Your task to perform on an android device: toggle notifications settings in the gmail app Image 0: 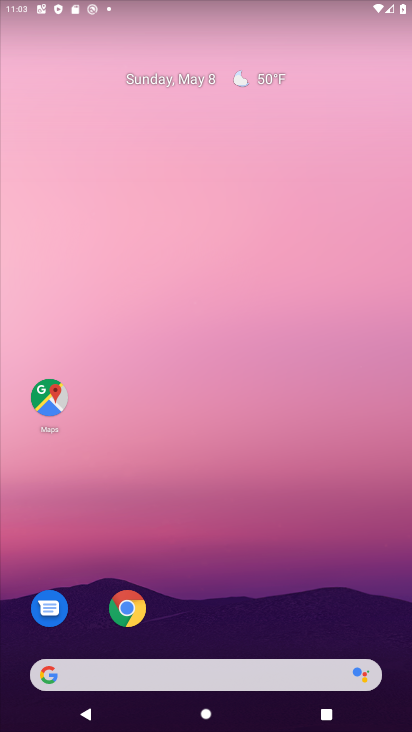
Step 0: drag from (326, 463) to (338, 99)
Your task to perform on an android device: toggle notifications settings in the gmail app Image 1: 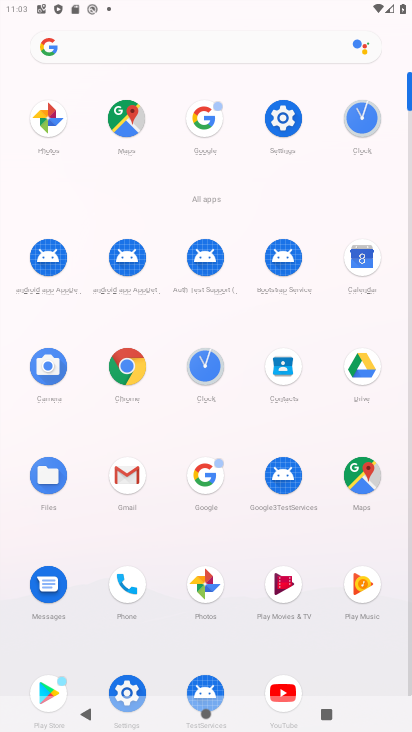
Step 1: click (140, 462)
Your task to perform on an android device: toggle notifications settings in the gmail app Image 2: 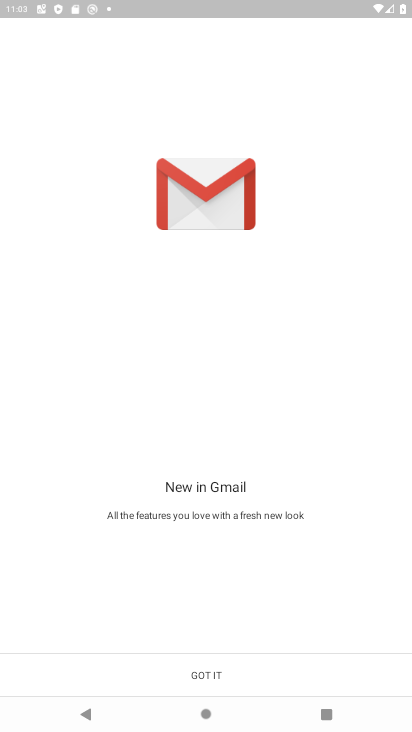
Step 2: click (224, 672)
Your task to perform on an android device: toggle notifications settings in the gmail app Image 3: 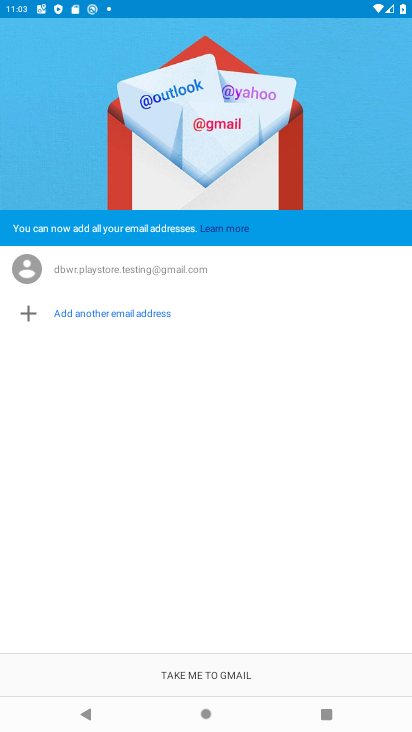
Step 3: click (224, 670)
Your task to perform on an android device: toggle notifications settings in the gmail app Image 4: 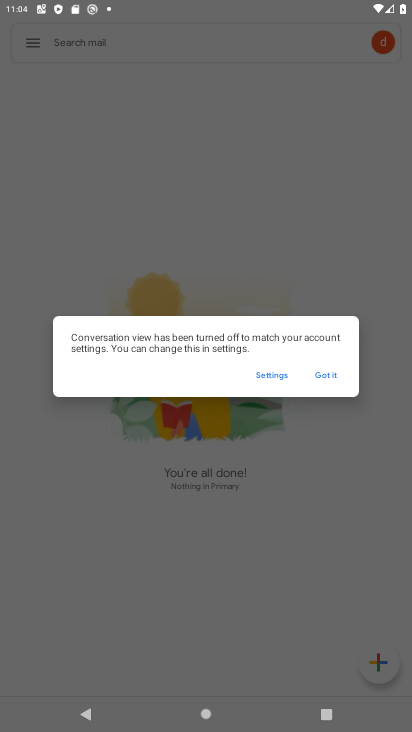
Step 4: click (323, 367)
Your task to perform on an android device: toggle notifications settings in the gmail app Image 5: 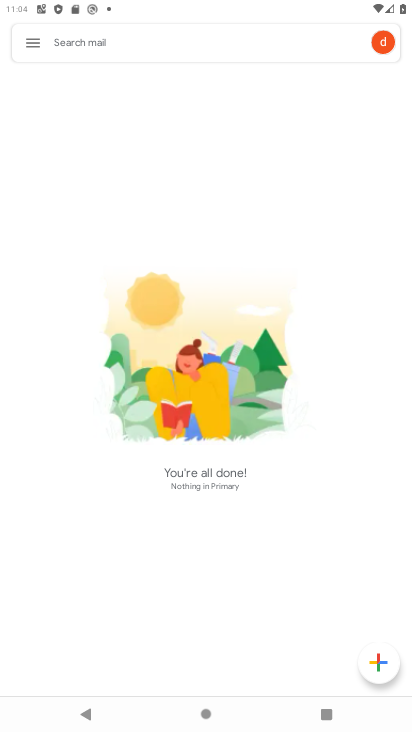
Step 5: click (41, 40)
Your task to perform on an android device: toggle notifications settings in the gmail app Image 6: 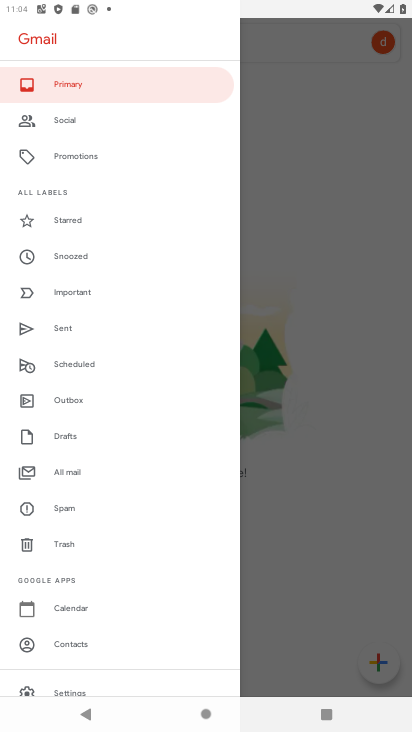
Step 6: drag from (141, 617) to (142, 89)
Your task to perform on an android device: toggle notifications settings in the gmail app Image 7: 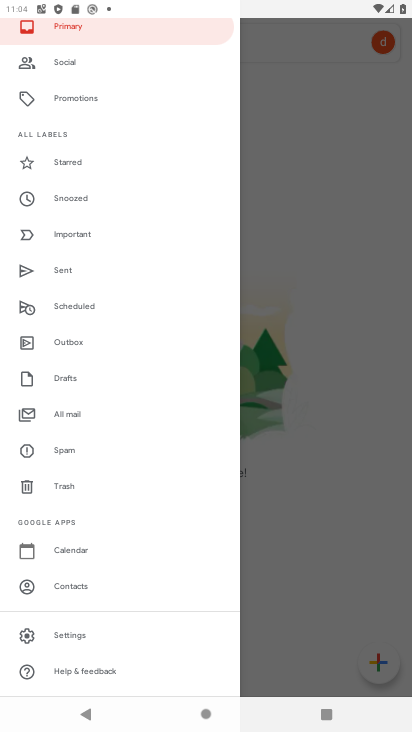
Step 7: click (54, 629)
Your task to perform on an android device: toggle notifications settings in the gmail app Image 8: 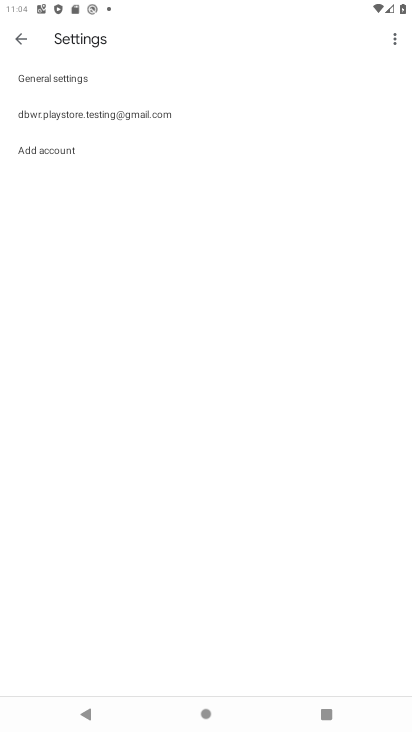
Step 8: click (64, 127)
Your task to perform on an android device: toggle notifications settings in the gmail app Image 9: 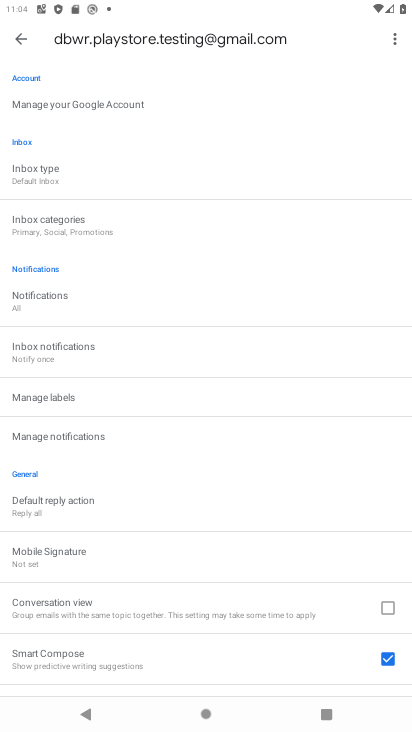
Step 9: drag from (128, 239) to (149, 605)
Your task to perform on an android device: toggle notifications settings in the gmail app Image 10: 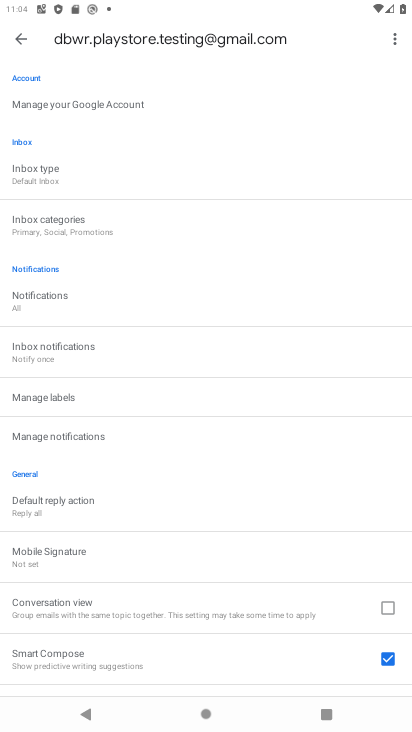
Step 10: drag from (145, 620) to (169, 121)
Your task to perform on an android device: toggle notifications settings in the gmail app Image 11: 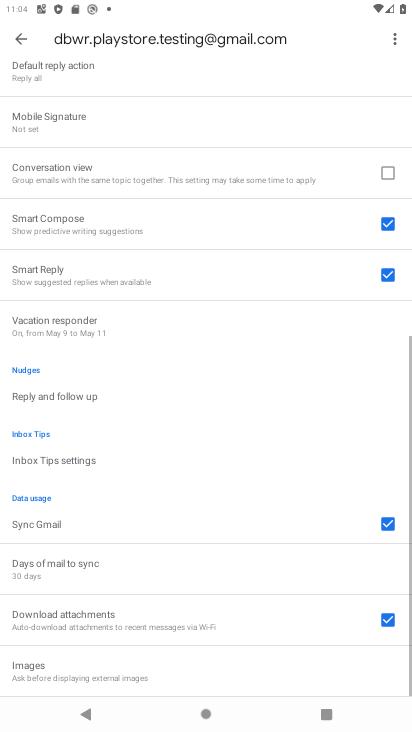
Step 11: drag from (134, 664) to (129, 163)
Your task to perform on an android device: toggle notifications settings in the gmail app Image 12: 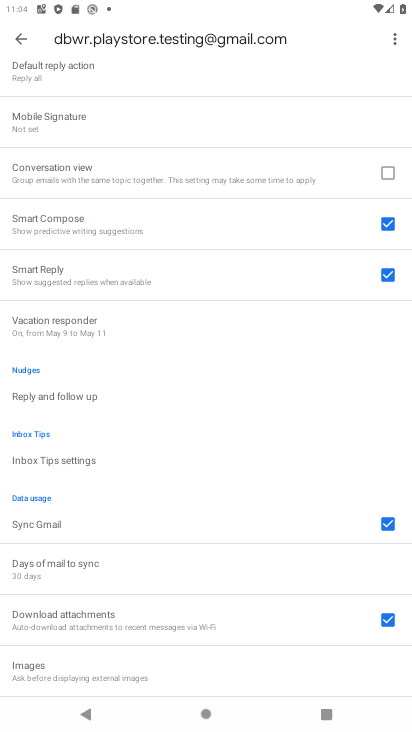
Step 12: drag from (130, 165) to (148, 605)
Your task to perform on an android device: toggle notifications settings in the gmail app Image 13: 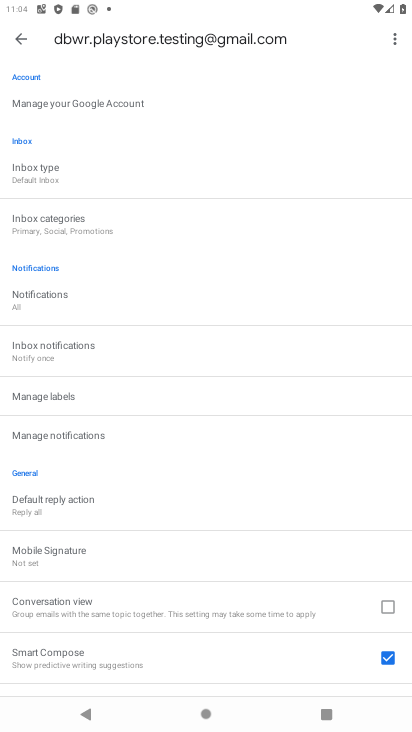
Step 13: drag from (131, 110) to (122, 556)
Your task to perform on an android device: toggle notifications settings in the gmail app Image 14: 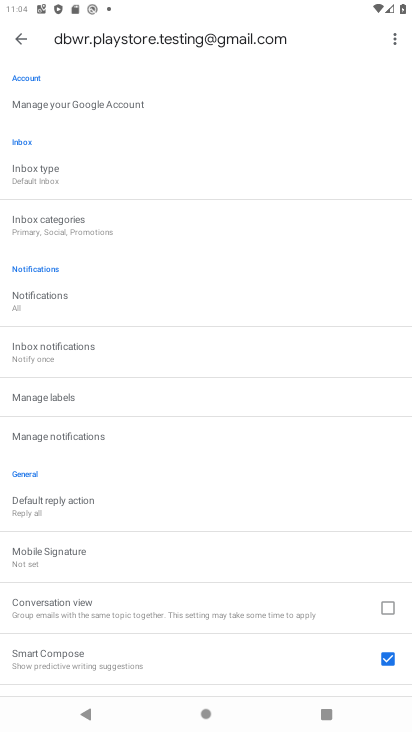
Step 14: click (304, 314)
Your task to perform on an android device: toggle notifications settings in the gmail app Image 15: 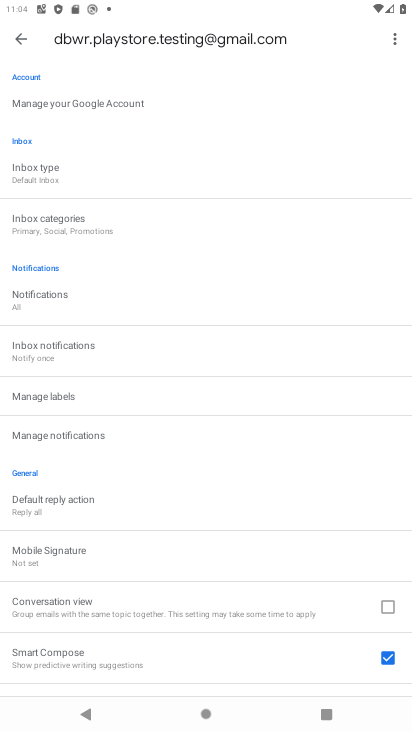
Step 15: click (54, 294)
Your task to perform on an android device: toggle notifications settings in the gmail app Image 16: 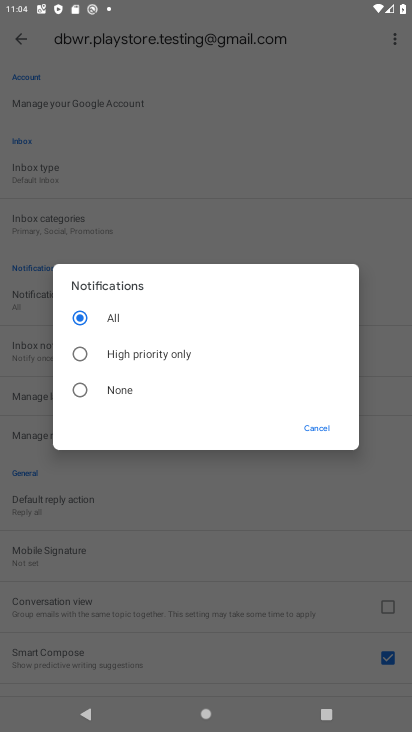
Step 16: drag from (54, 283) to (60, 336)
Your task to perform on an android device: toggle notifications settings in the gmail app Image 17: 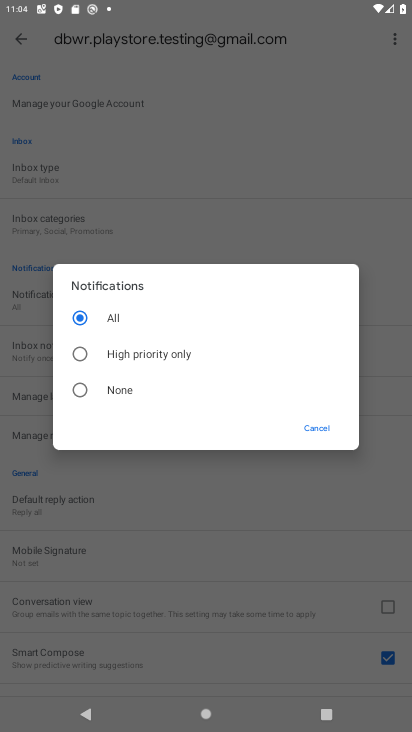
Step 17: click (111, 350)
Your task to perform on an android device: toggle notifications settings in the gmail app Image 18: 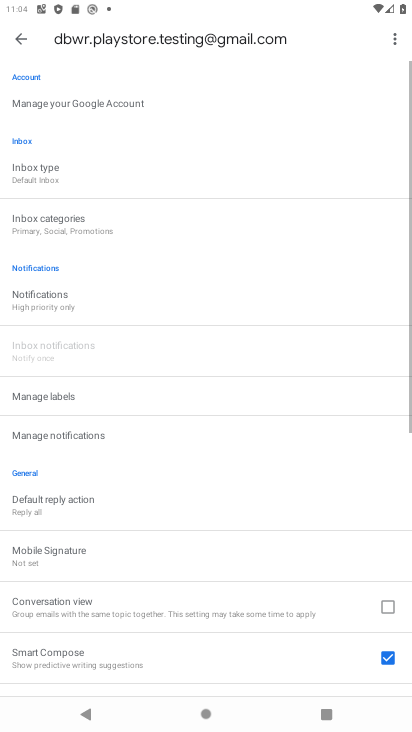
Step 18: task complete